Your task to perform on an android device: Search for seafood restaurants on Google Maps Image 0: 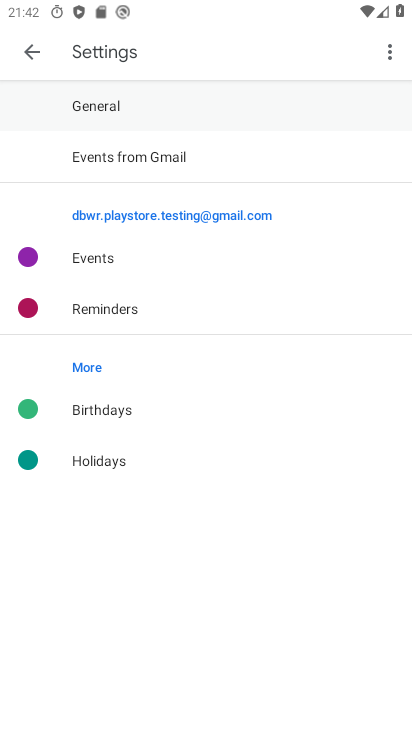
Step 0: press home button
Your task to perform on an android device: Search for seafood restaurants on Google Maps Image 1: 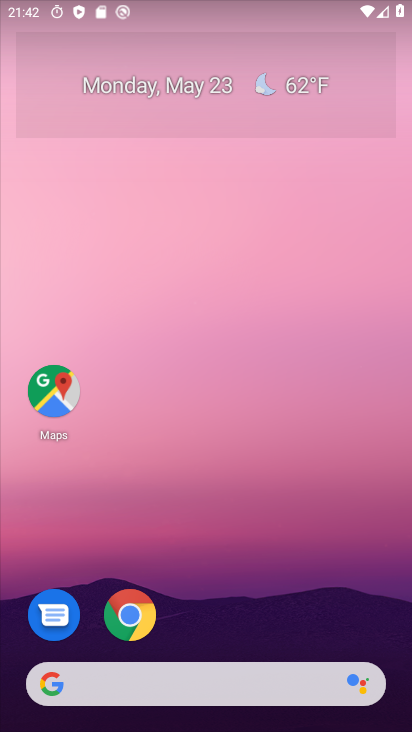
Step 1: click (53, 393)
Your task to perform on an android device: Search for seafood restaurants on Google Maps Image 2: 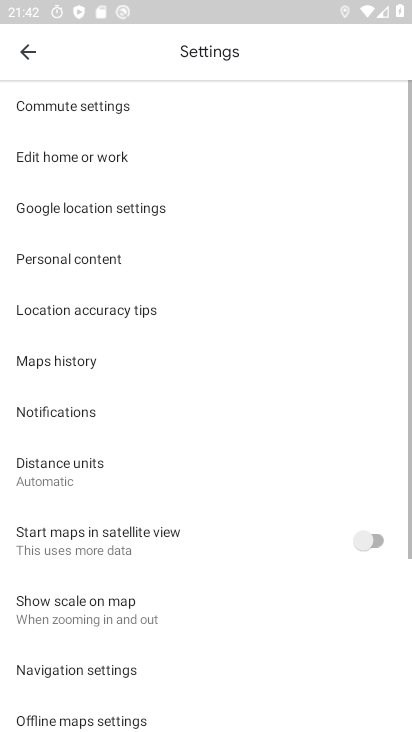
Step 2: press back button
Your task to perform on an android device: Search for seafood restaurants on Google Maps Image 3: 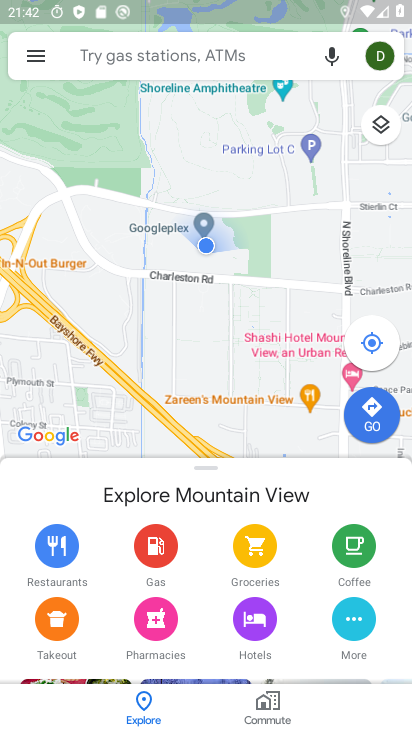
Step 3: click (173, 59)
Your task to perform on an android device: Search for seafood restaurants on Google Maps Image 4: 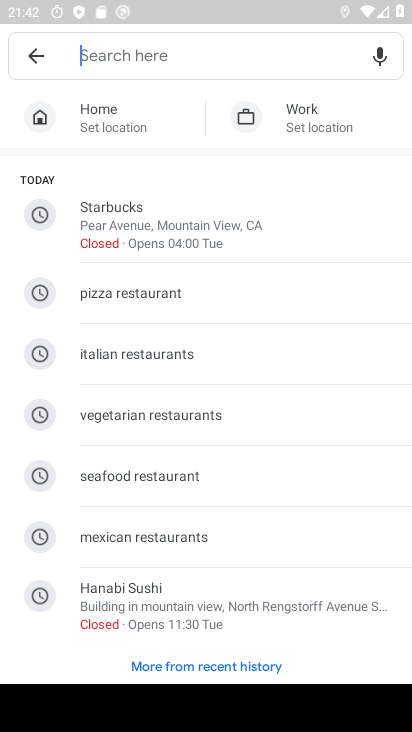
Step 4: click (179, 482)
Your task to perform on an android device: Search for seafood restaurants on Google Maps Image 5: 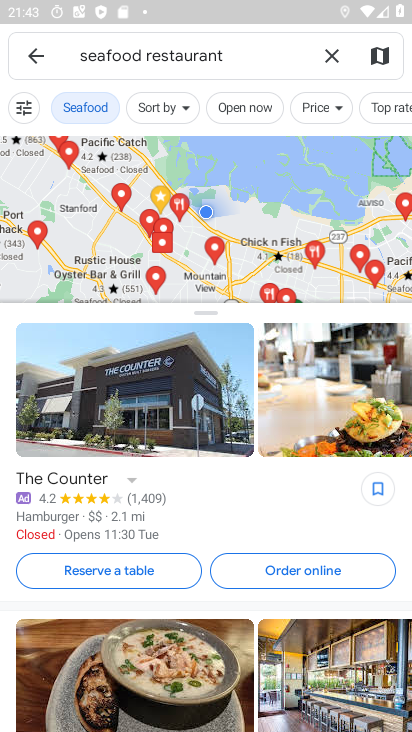
Step 5: task complete